Your task to perform on an android device: Clear all items from cart on amazon.com. Add "razer nari" to the cart on amazon.com, then select checkout. Image 0: 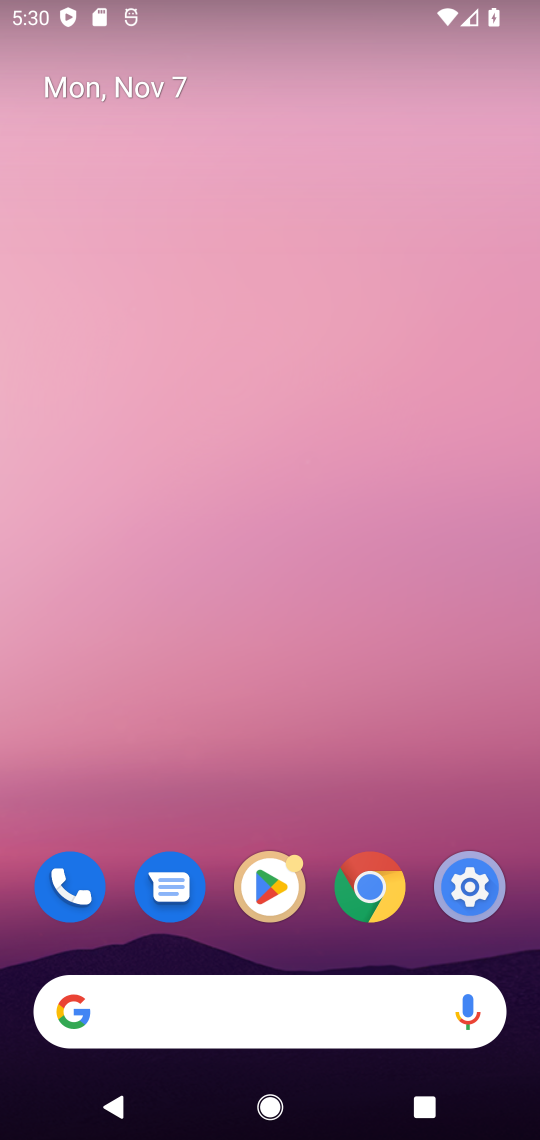
Step 0: click (364, 881)
Your task to perform on an android device: Clear all items from cart on amazon.com. Add "razer nari" to the cart on amazon.com, then select checkout. Image 1: 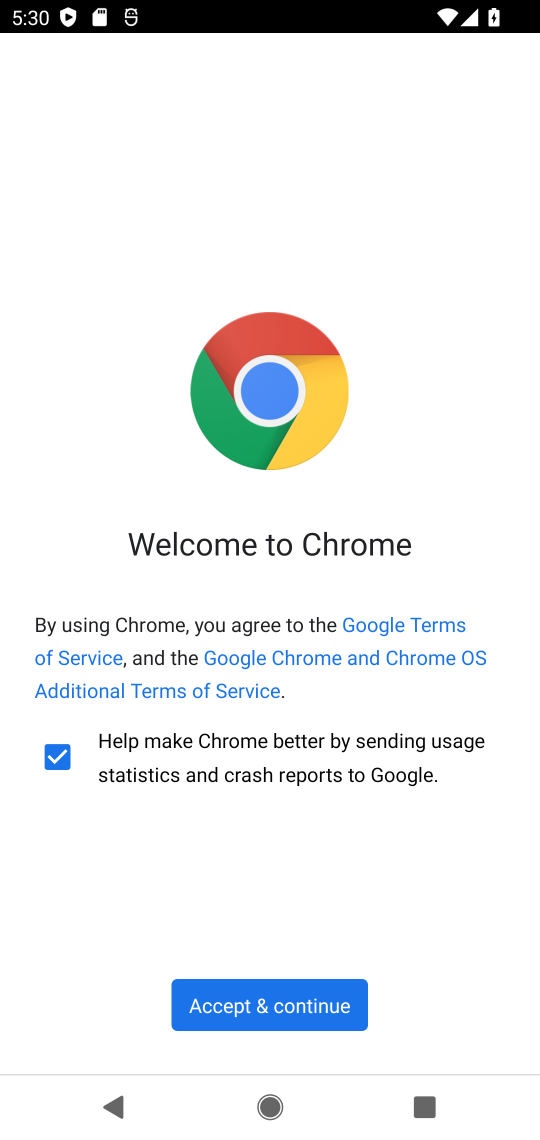
Step 1: click (302, 1000)
Your task to perform on an android device: Clear all items from cart on amazon.com. Add "razer nari" to the cart on amazon.com, then select checkout. Image 2: 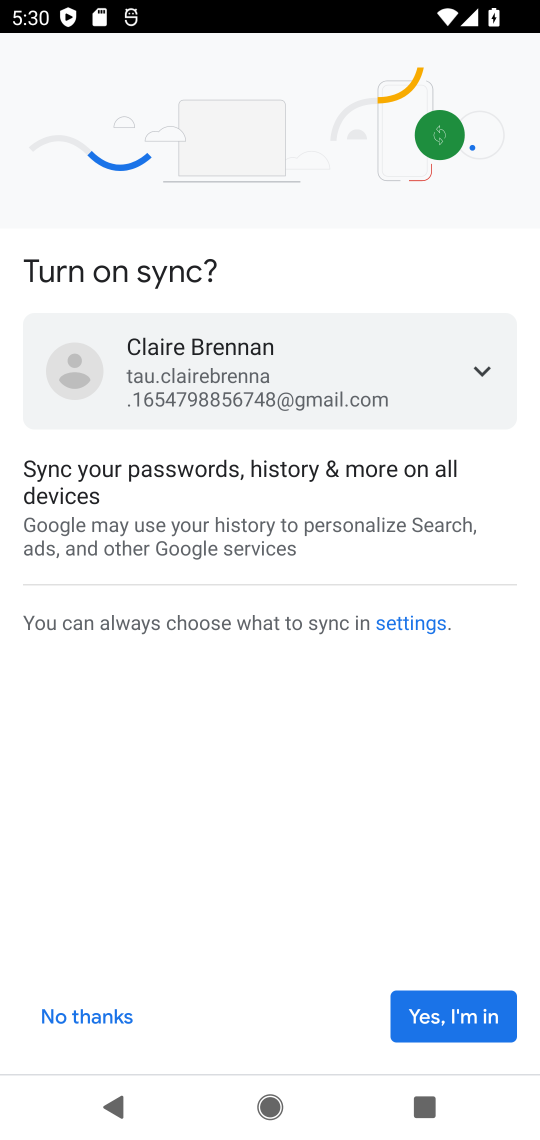
Step 2: click (455, 1027)
Your task to perform on an android device: Clear all items from cart on amazon.com. Add "razer nari" to the cart on amazon.com, then select checkout. Image 3: 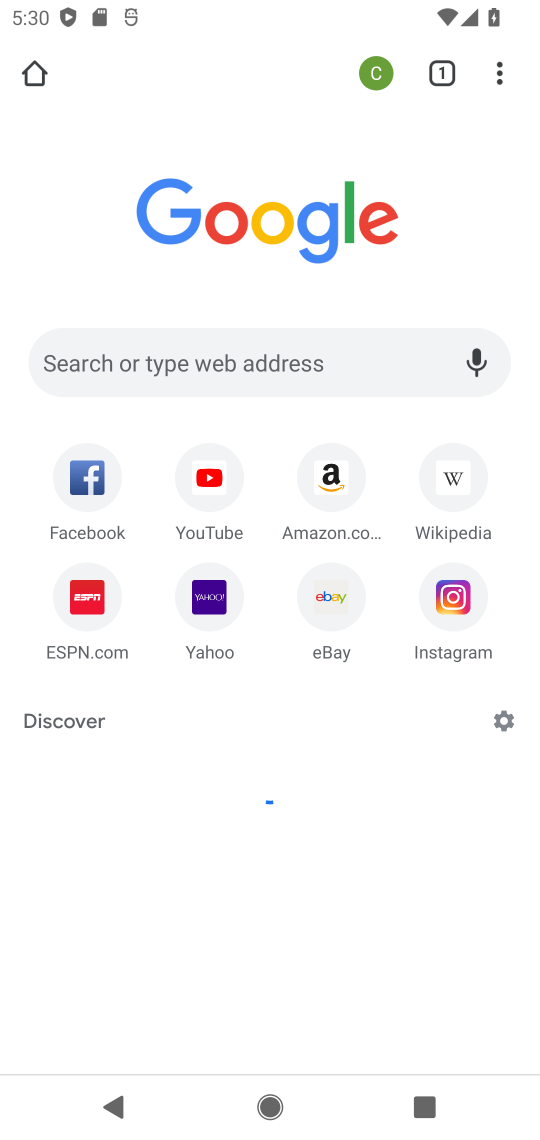
Step 3: click (234, 344)
Your task to perform on an android device: Clear all items from cart on amazon.com. Add "razer nari" to the cart on amazon.com, then select checkout. Image 4: 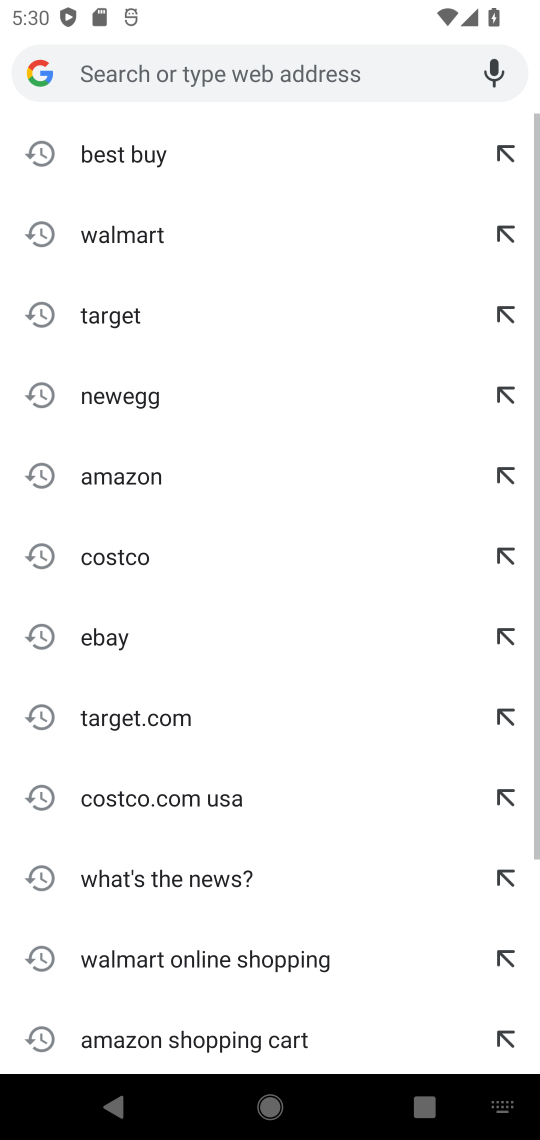
Step 4: type "amazon"
Your task to perform on an android device: Clear all items from cart on amazon.com. Add "razer nari" to the cart on amazon.com, then select checkout. Image 5: 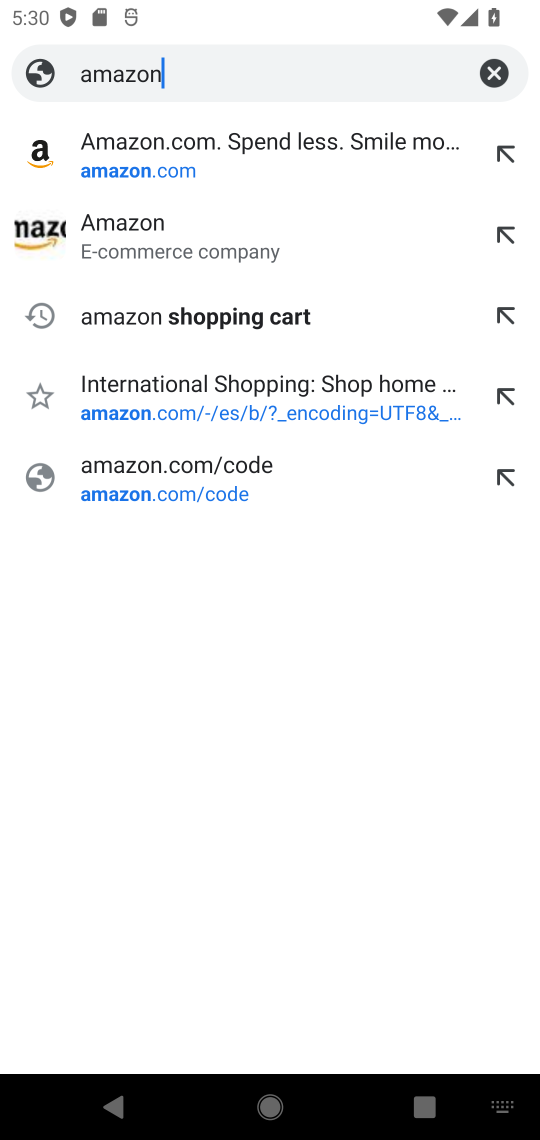
Step 5: click (176, 152)
Your task to perform on an android device: Clear all items from cart on amazon.com. Add "razer nari" to the cart on amazon.com, then select checkout. Image 6: 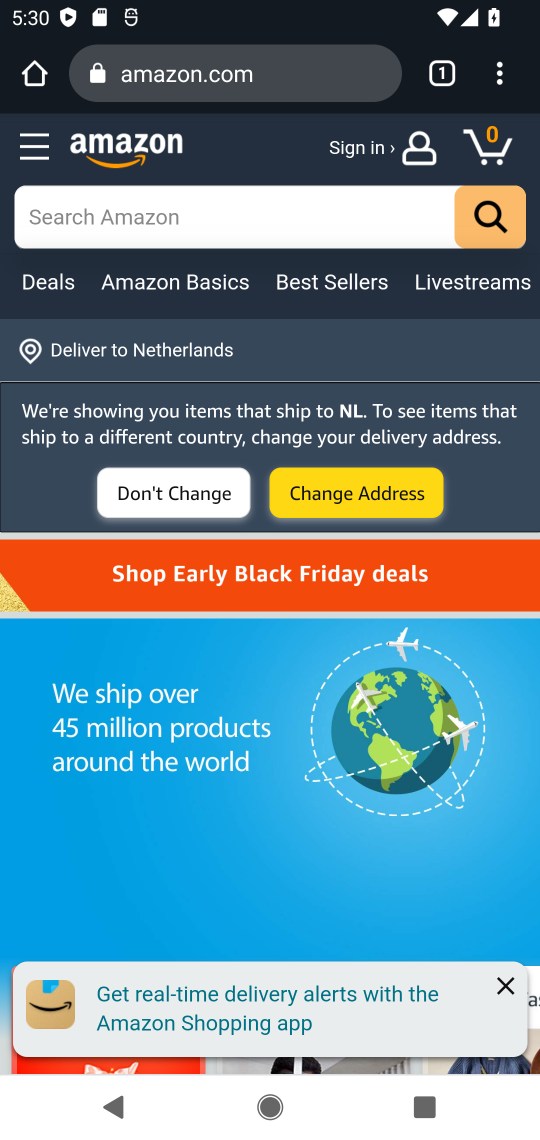
Step 6: click (43, 221)
Your task to perform on an android device: Clear all items from cart on amazon.com. Add "razer nari" to the cart on amazon.com, then select checkout. Image 7: 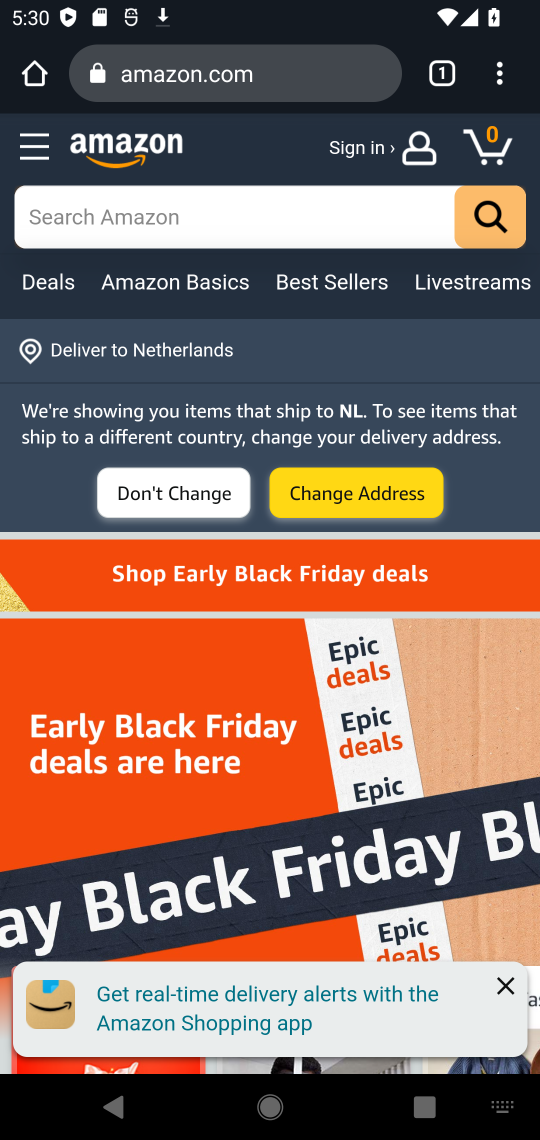
Step 7: type "razer nari"
Your task to perform on an android device: Clear all items from cart on amazon.com. Add "razer nari" to the cart on amazon.com, then select checkout. Image 8: 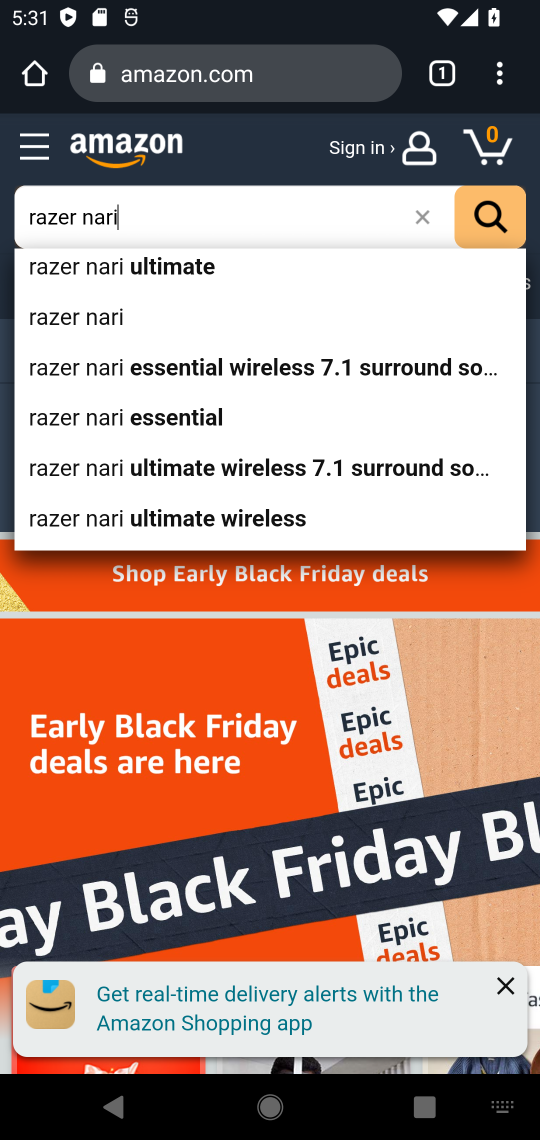
Step 8: click (191, 267)
Your task to perform on an android device: Clear all items from cart on amazon.com. Add "razer nari" to the cart on amazon.com, then select checkout. Image 9: 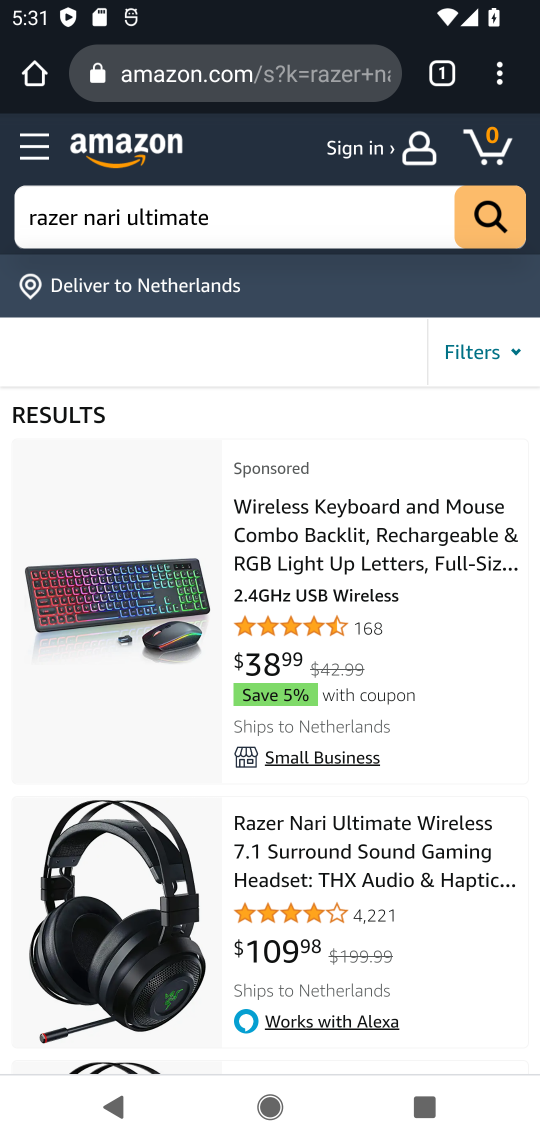
Step 9: click (285, 909)
Your task to perform on an android device: Clear all items from cart on amazon.com. Add "razer nari" to the cart on amazon.com, then select checkout. Image 10: 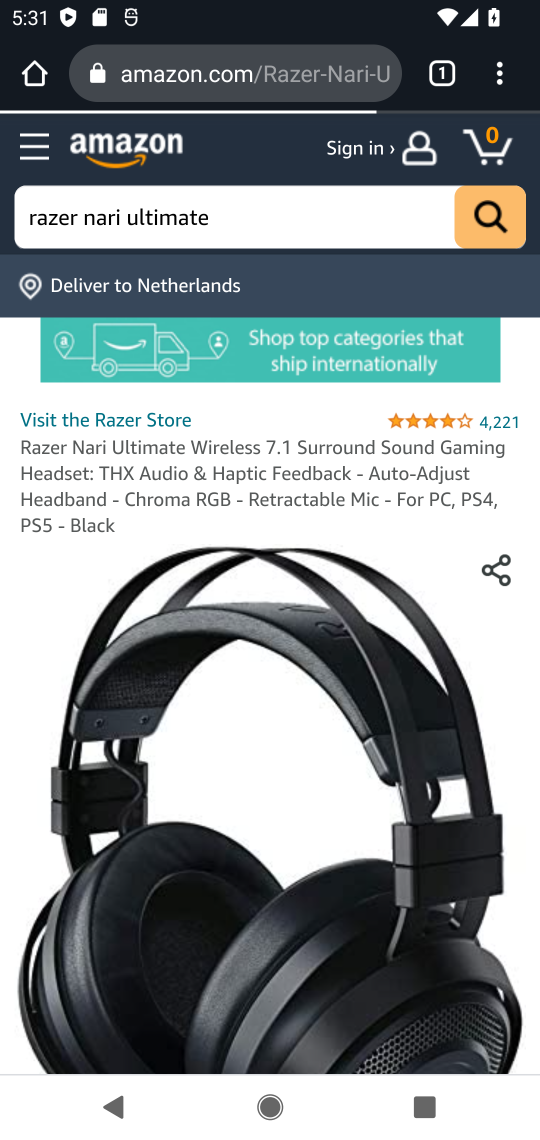
Step 10: drag from (280, 933) to (362, 231)
Your task to perform on an android device: Clear all items from cart on amazon.com. Add "razer nari" to the cart on amazon.com, then select checkout. Image 11: 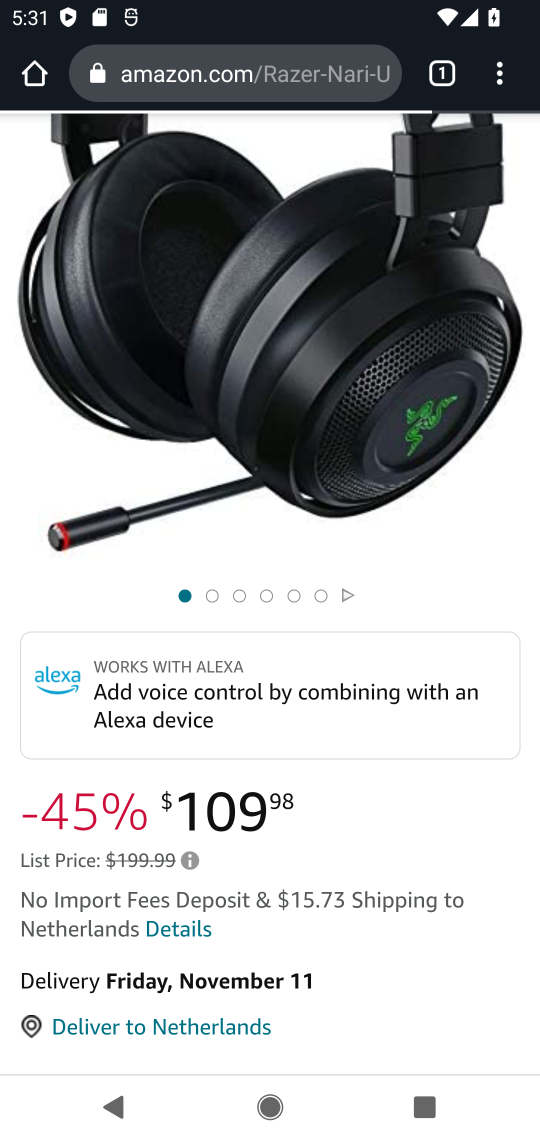
Step 11: drag from (211, 757) to (328, 391)
Your task to perform on an android device: Clear all items from cart on amazon.com. Add "razer nari" to the cart on amazon.com, then select checkout. Image 12: 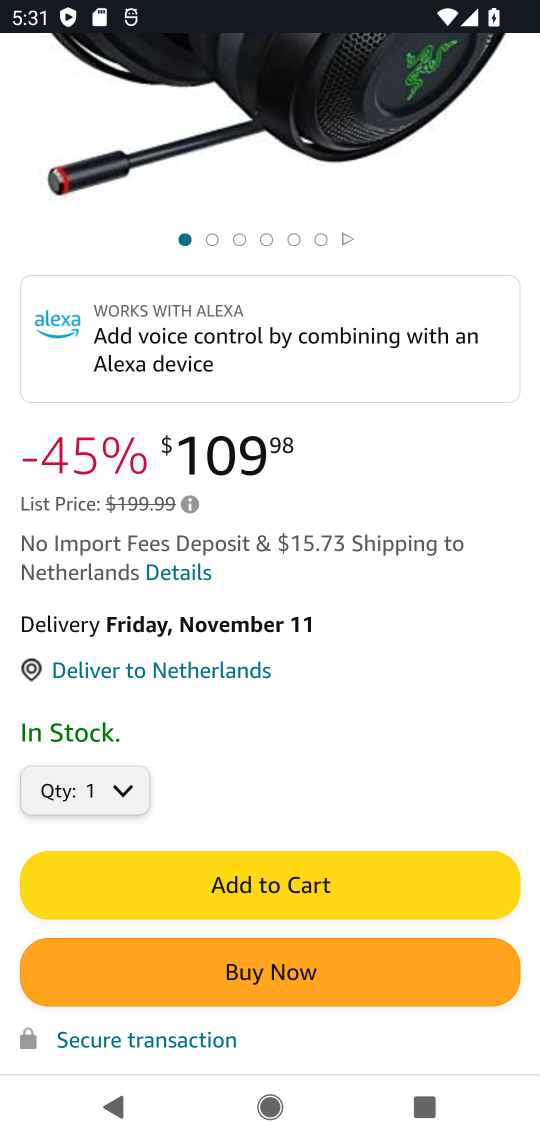
Step 12: click (247, 886)
Your task to perform on an android device: Clear all items from cart on amazon.com. Add "razer nari" to the cart on amazon.com, then select checkout. Image 13: 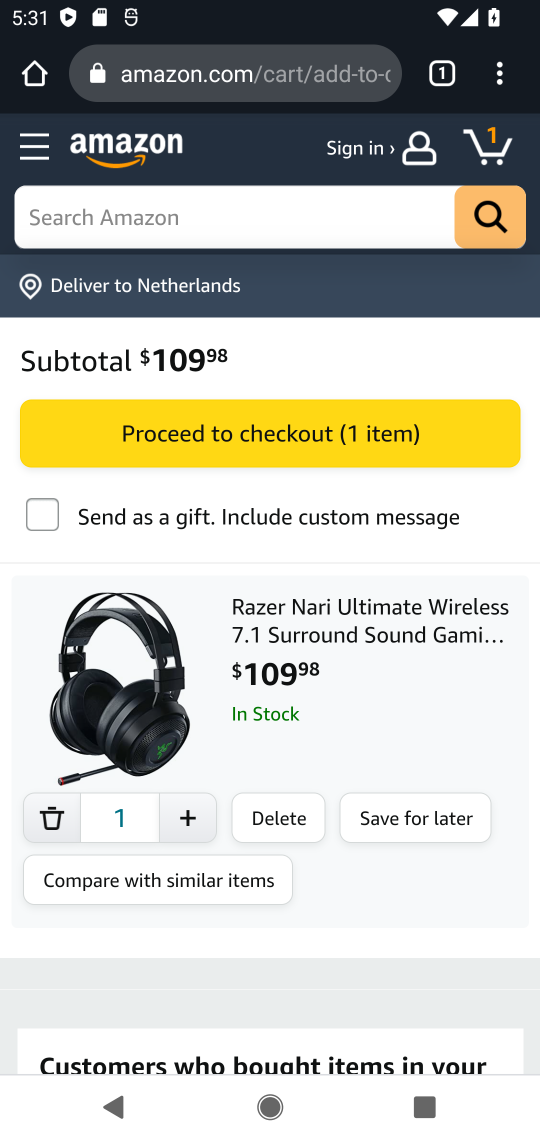
Step 13: click (316, 435)
Your task to perform on an android device: Clear all items from cart on amazon.com. Add "razer nari" to the cart on amazon.com, then select checkout. Image 14: 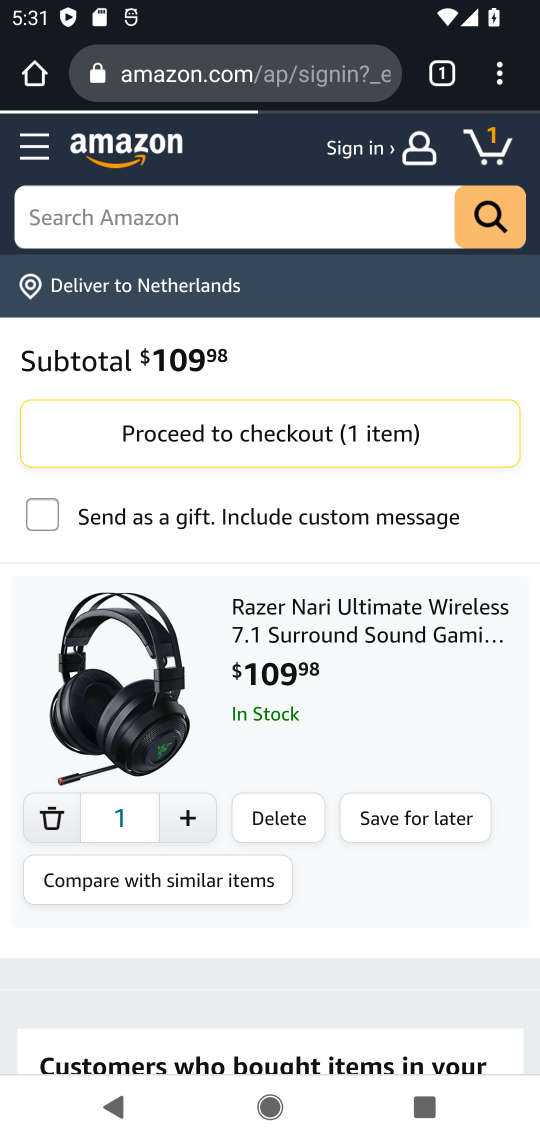
Step 14: task complete